Your task to perform on an android device: Open the phone app and click the voicemail tab. Image 0: 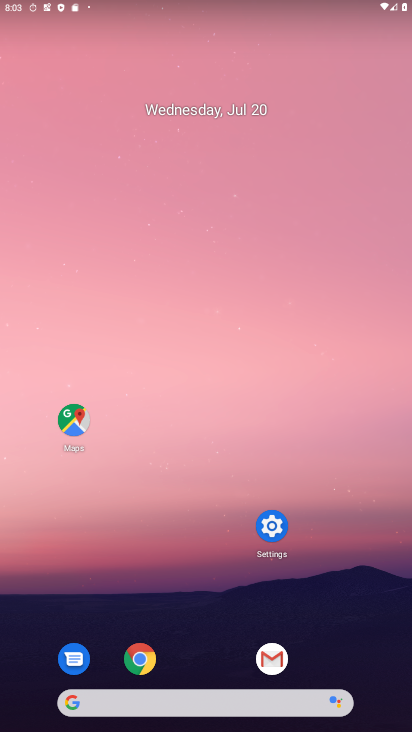
Step 0: drag from (294, 713) to (222, 180)
Your task to perform on an android device: Open the phone app and click the voicemail tab. Image 1: 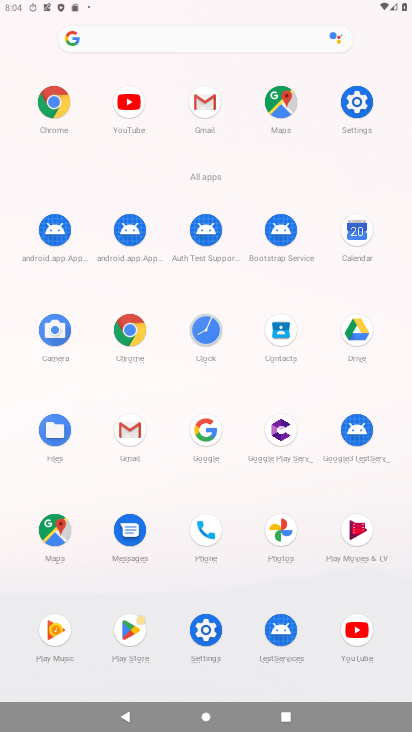
Step 1: click (211, 530)
Your task to perform on an android device: Open the phone app and click the voicemail tab. Image 2: 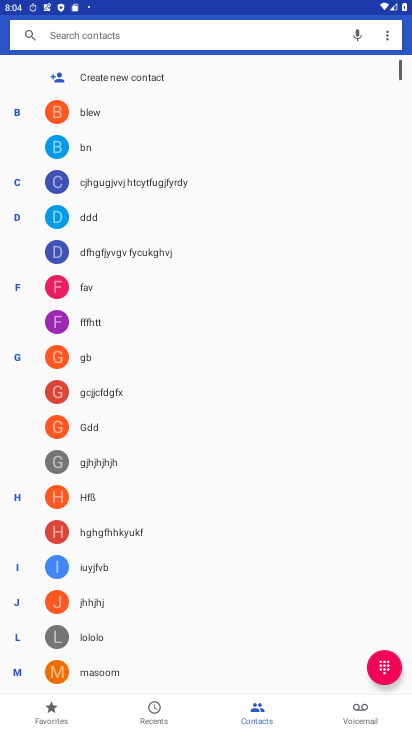
Step 2: click (361, 707)
Your task to perform on an android device: Open the phone app and click the voicemail tab. Image 3: 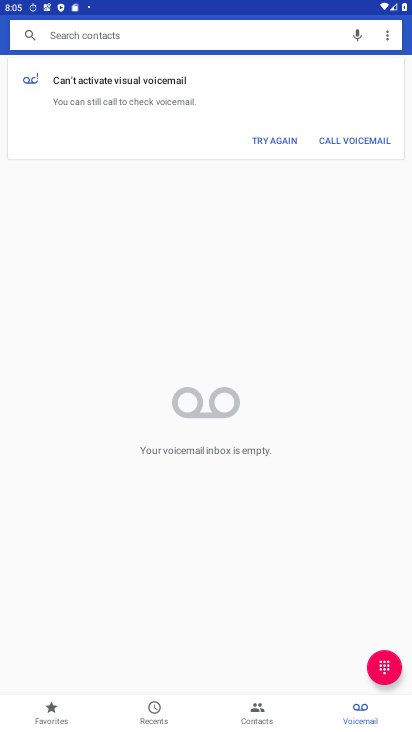
Step 3: task complete